Your task to perform on an android device: turn on location history Image 0: 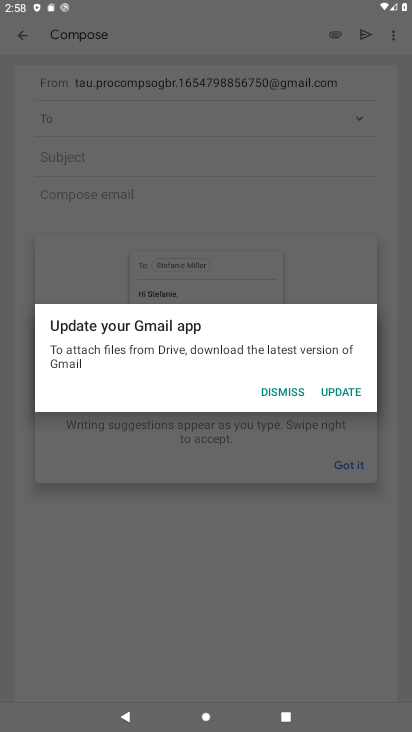
Step 0: click (262, 389)
Your task to perform on an android device: turn on location history Image 1: 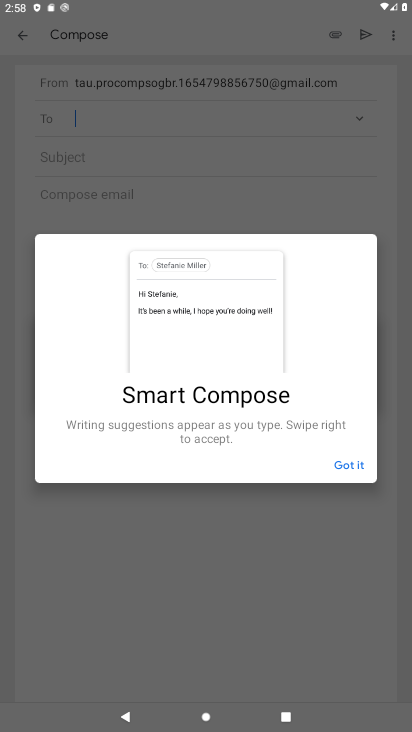
Step 1: press back button
Your task to perform on an android device: turn on location history Image 2: 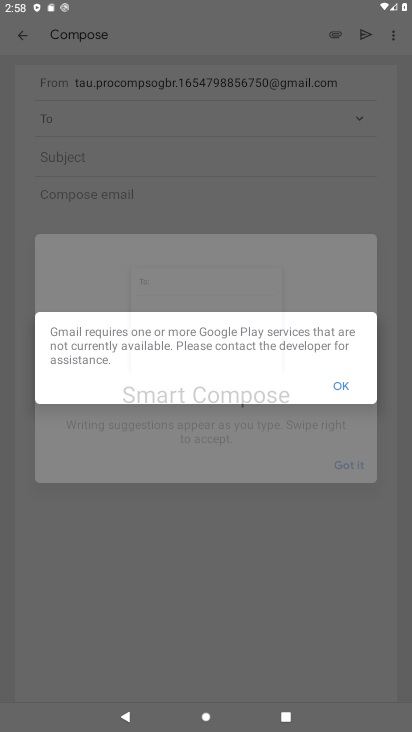
Step 2: press back button
Your task to perform on an android device: turn on location history Image 3: 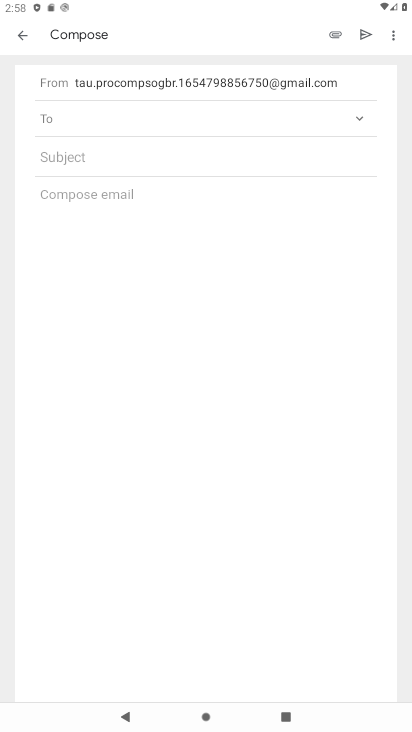
Step 3: press home button
Your task to perform on an android device: turn on location history Image 4: 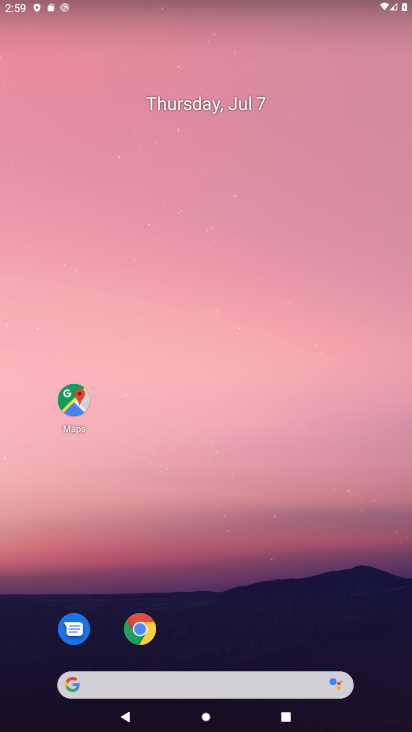
Step 4: drag from (197, 256) to (131, 12)
Your task to perform on an android device: turn on location history Image 5: 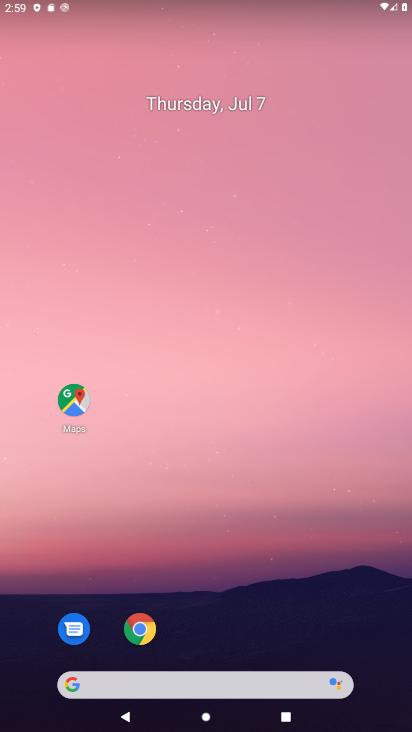
Step 5: drag from (279, 393) to (135, 57)
Your task to perform on an android device: turn on location history Image 6: 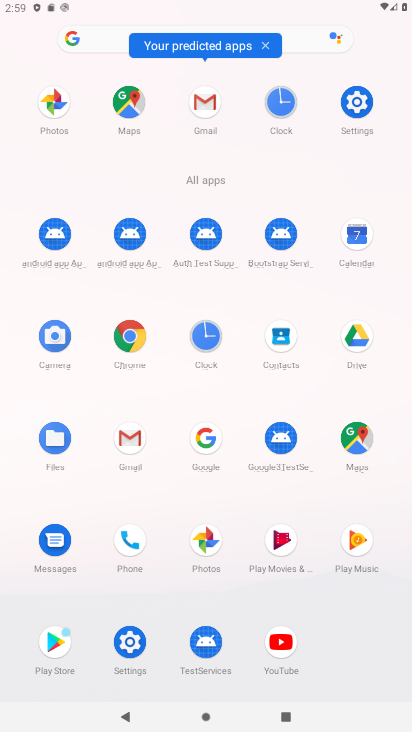
Step 6: click (348, 112)
Your task to perform on an android device: turn on location history Image 7: 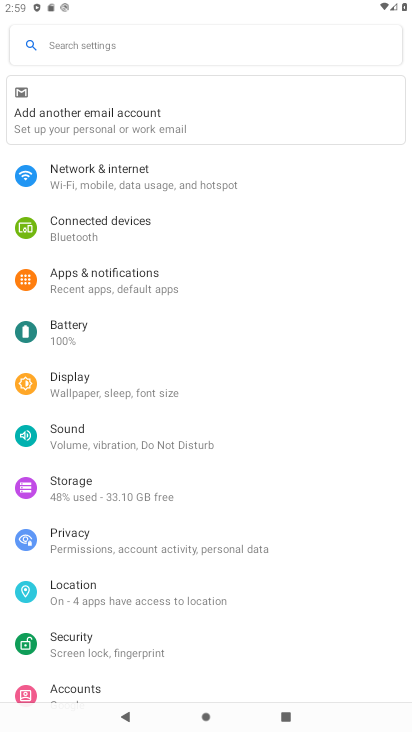
Step 7: click (94, 585)
Your task to perform on an android device: turn on location history Image 8: 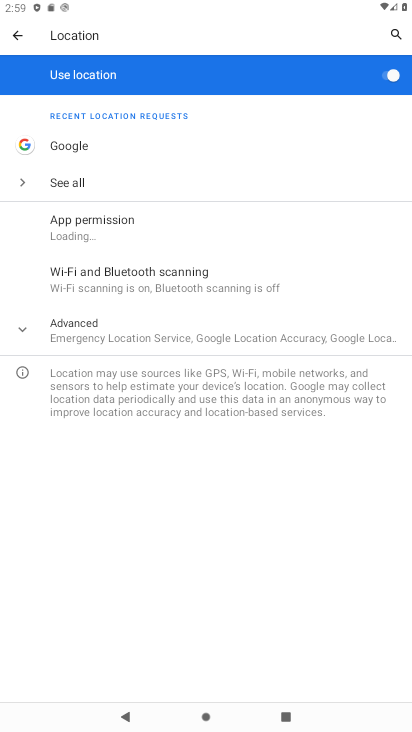
Step 8: click (117, 330)
Your task to perform on an android device: turn on location history Image 9: 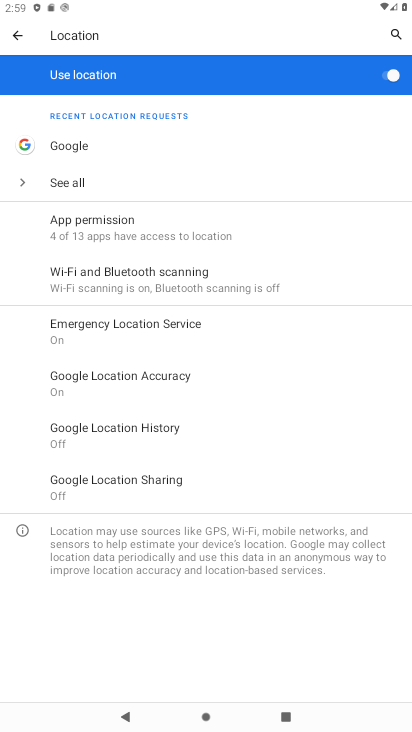
Step 9: click (164, 436)
Your task to perform on an android device: turn on location history Image 10: 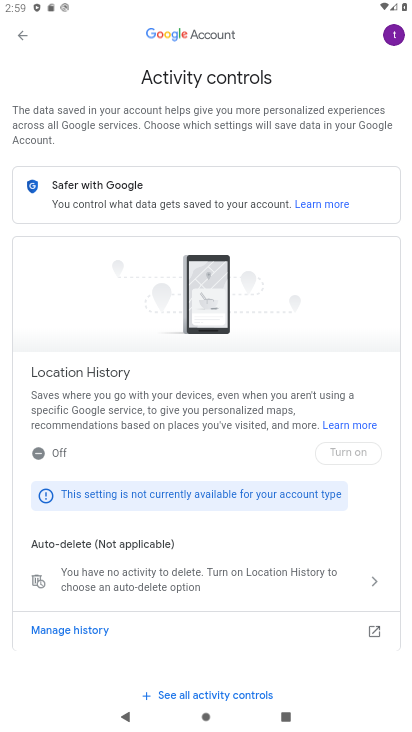
Step 10: task complete